Your task to perform on an android device: Search for sushi restaurants on Maps Image 0: 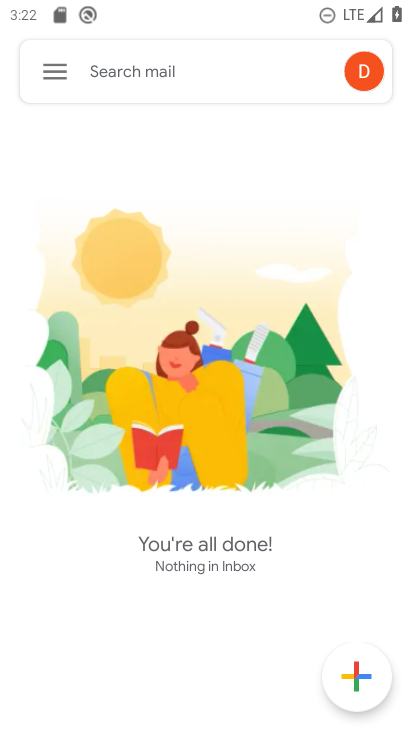
Step 0: press home button
Your task to perform on an android device: Search for sushi restaurants on Maps Image 1: 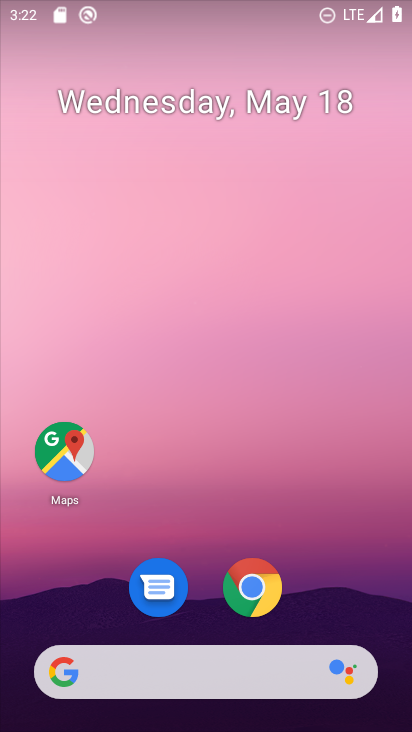
Step 1: drag from (181, 667) to (197, 115)
Your task to perform on an android device: Search for sushi restaurants on Maps Image 2: 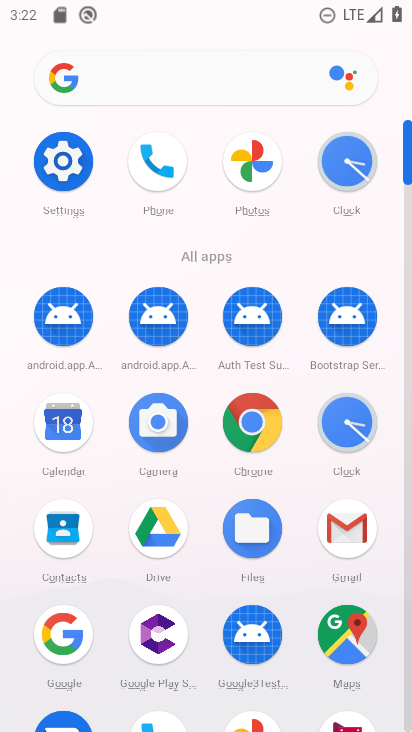
Step 2: click (348, 644)
Your task to perform on an android device: Search for sushi restaurants on Maps Image 3: 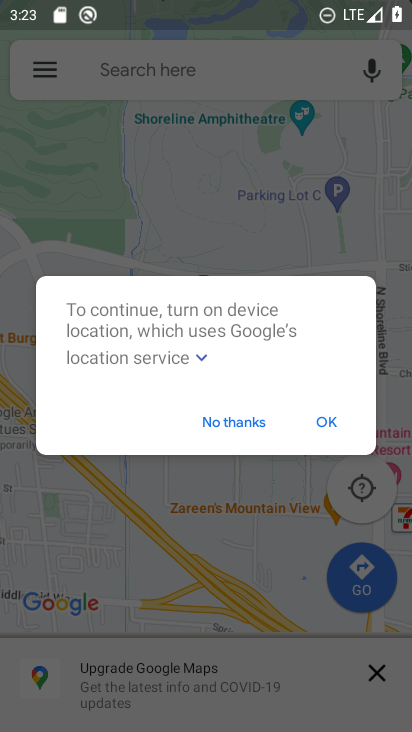
Step 3: click (327, 433)
Your task to perform on an android device: Search for sushi restaurants on Maps Image 4: 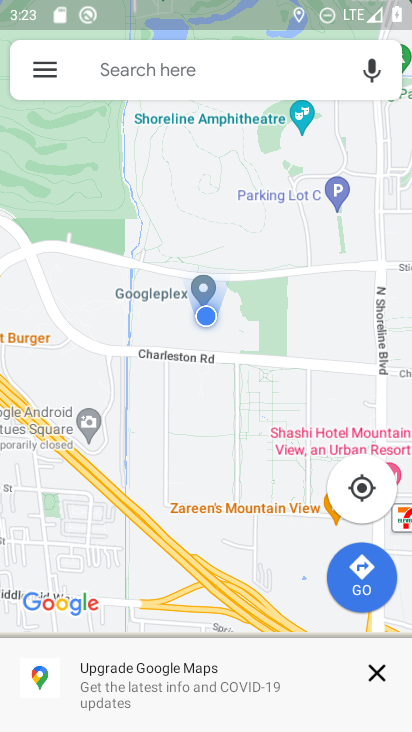
Step 4: click (209, 67)
Your task to perform on an android device: Search for sushi restaurants on Maps Image 5: 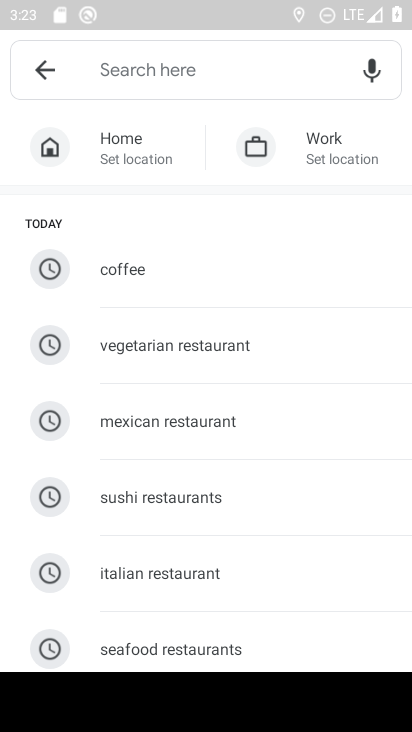
Step 5: click (219, 508)
Your task to perform on an android device: Search for sushi restaurants on Maps Image 6: 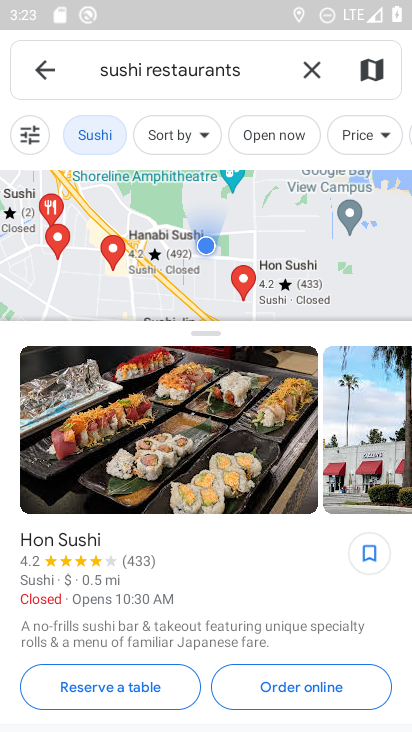
Step 6: task complete